Your task to perform on an android device: Go to privacy settings Image 0: 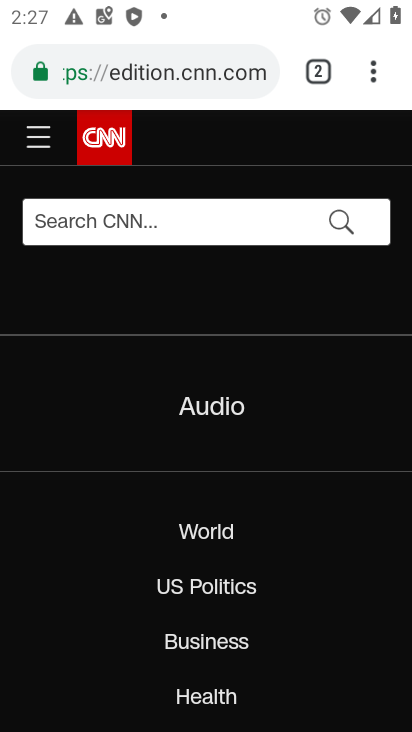
Step 0: press home button
Your task to perform on an android device: Go to privacy settings Image 1: 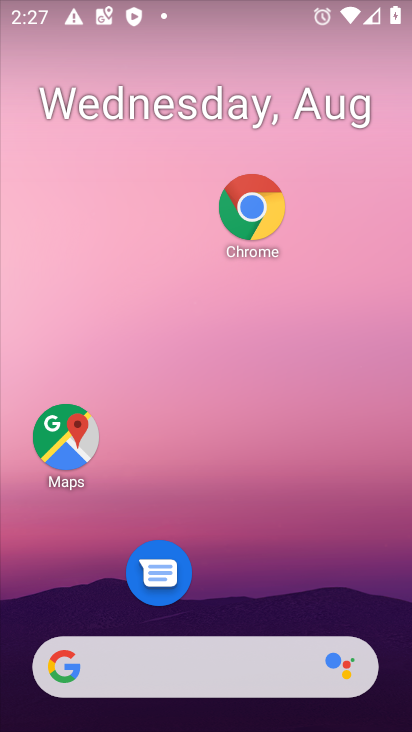
Step 1: drag from (228, 582) to (399, 359)
Your task to perform on an android device: Go to privacy settings Image 2: 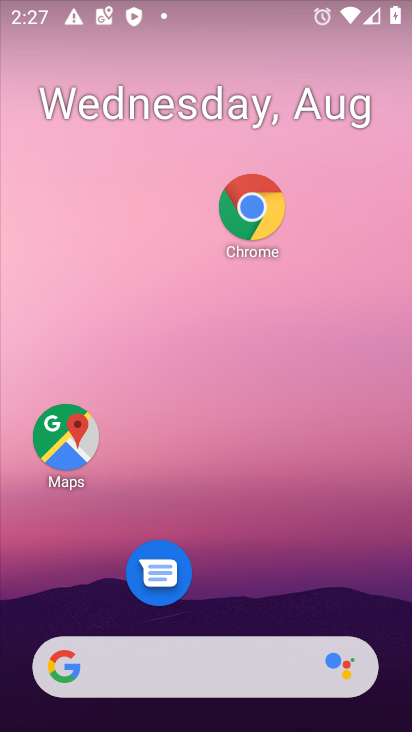
Step 2: drag from (221, 628) to (406, 132)
Your task to perform on an android device: Go to privacy settings Image 3: 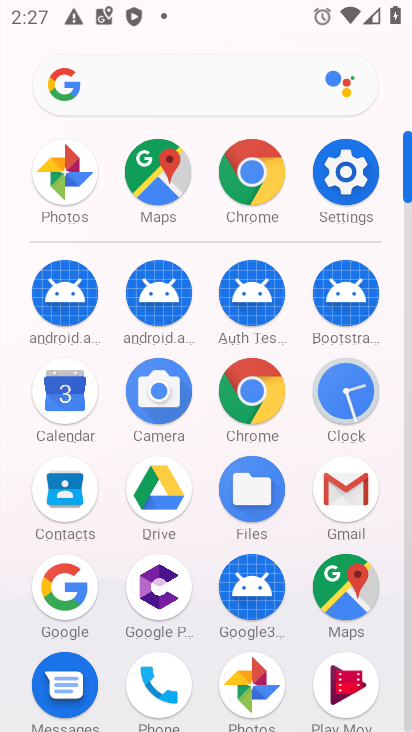
Step 3: click (351, 209)
Your task to perform on an android device: Go to privacy settings Image 4: 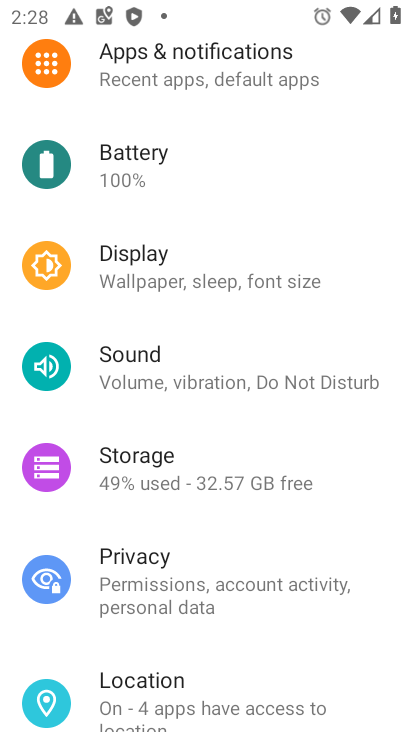
Step 4: click (206, 571)
Your task to perform on an android device: Go to privacy settings Image 5: 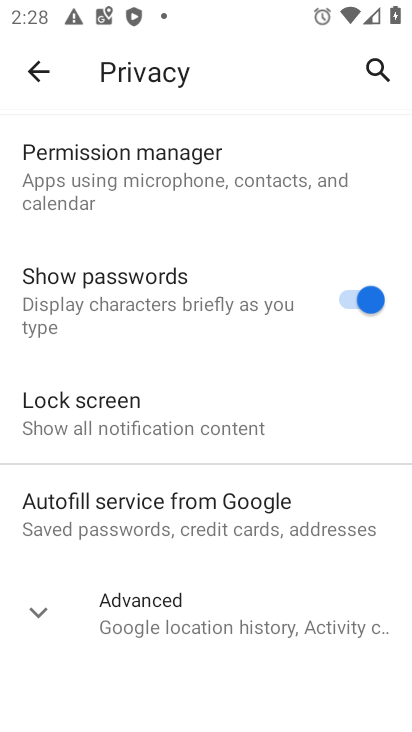
Step 5: task complete